Your task to perform on an android device: Open Youtube and go to "Your channel" Image 0: 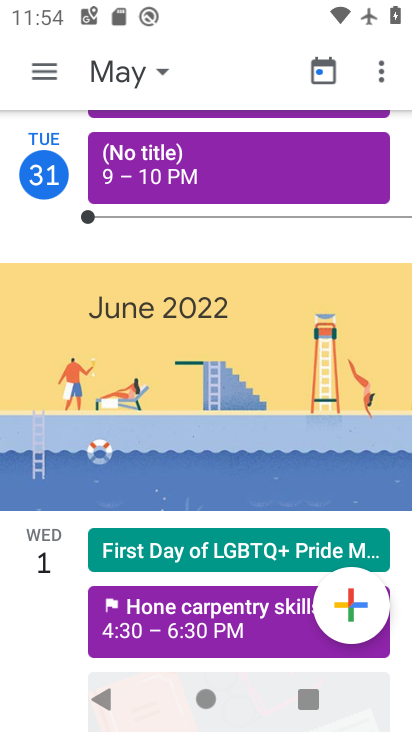
Step 0: press back button
Your task to perform on an android device: Open Youtube and go to "Your channel" Image 1: 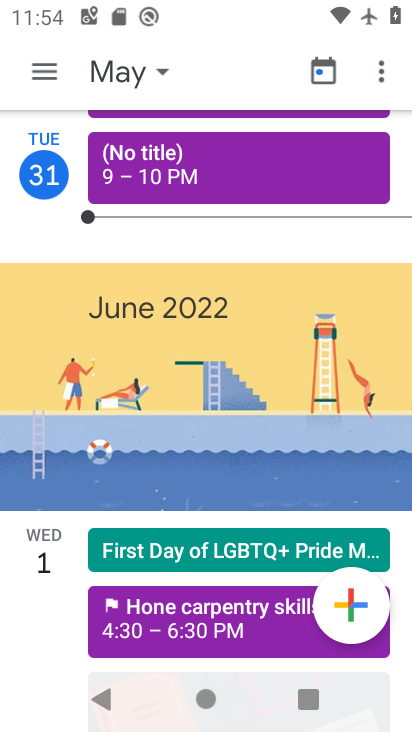
Step 1: press back button
Your task to perform on an android device: Open Youtube and go to "Your channel" Image 2: 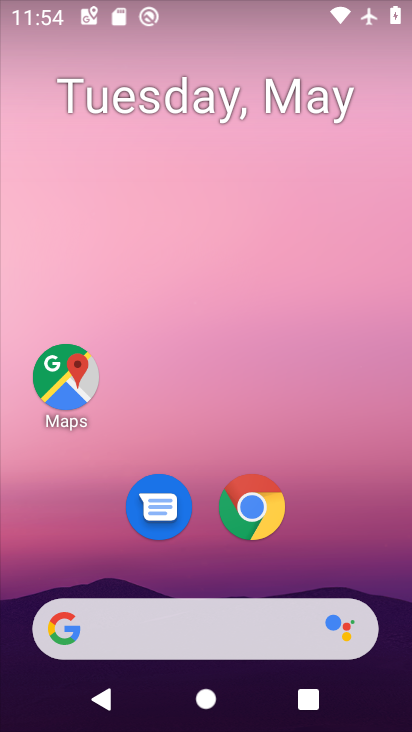
Step 2: drag from (284, 701) to (280, 198)
Your task to perform on an android device: Open Youtube and go to "Your channel" Image 3: 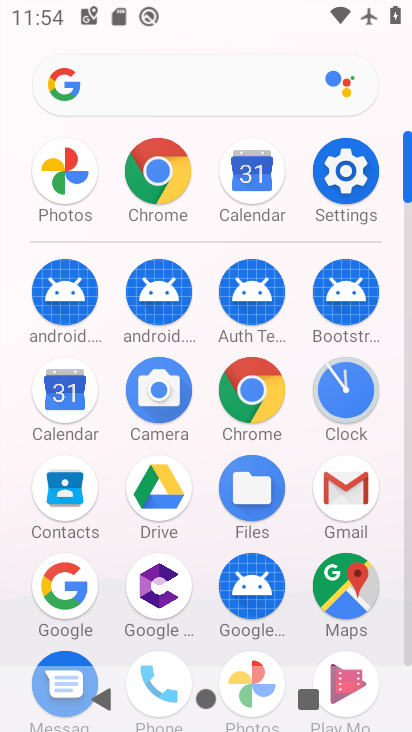
Step 3: drag from (313, 520) to (313, 257)
Your task to perform on an android device: Open Youtube and go to "Your channel" Image 4: 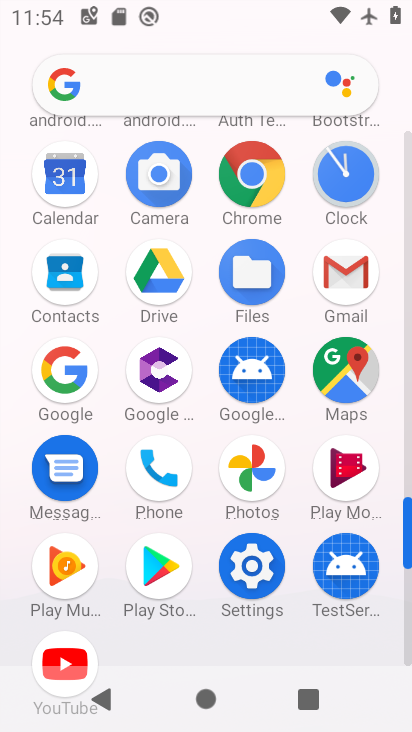
Step 4: drag from (301, 370) to (301, 188)
Your task to perform on an android device: Open Youtube and go to "Your channel" Image 5: 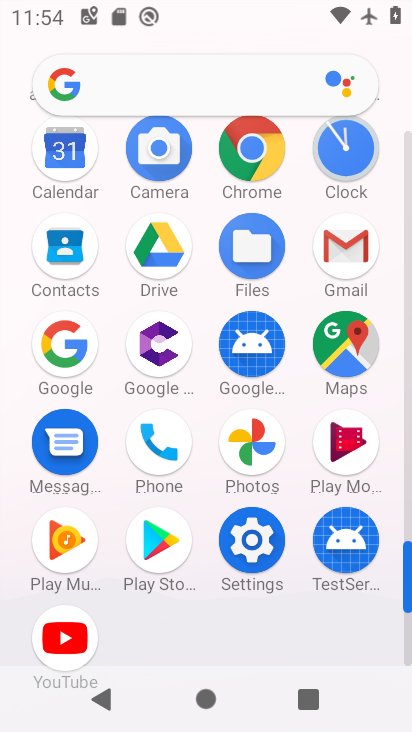
Step 5: click (69, 630)
Your task to perform on an android device: Open Youtube and go to "Your channel" Image 6: 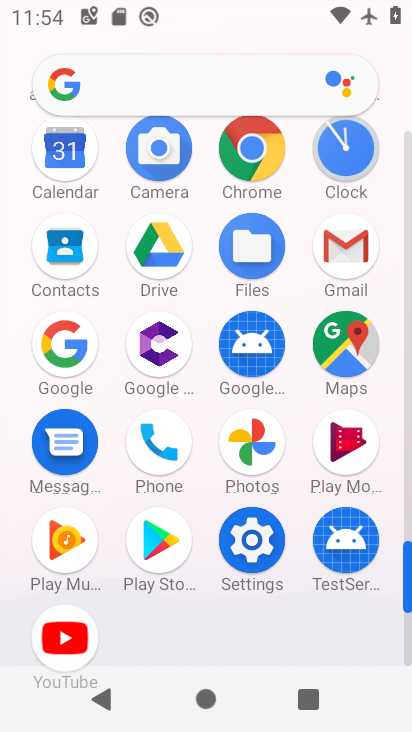
Step 6: click (69, 628)
Your task to perform on an android device: Open Youtube and go to "Your channel" Image 7: 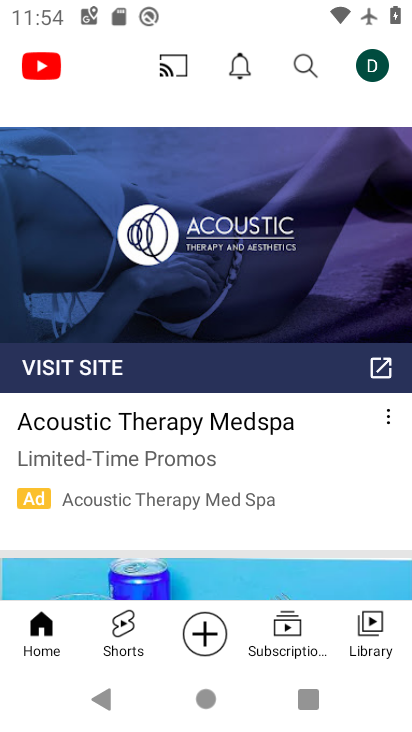
Step 7: task complete